Your task to perform on an android device: Open the calendar and show me this week's events? Image 0: 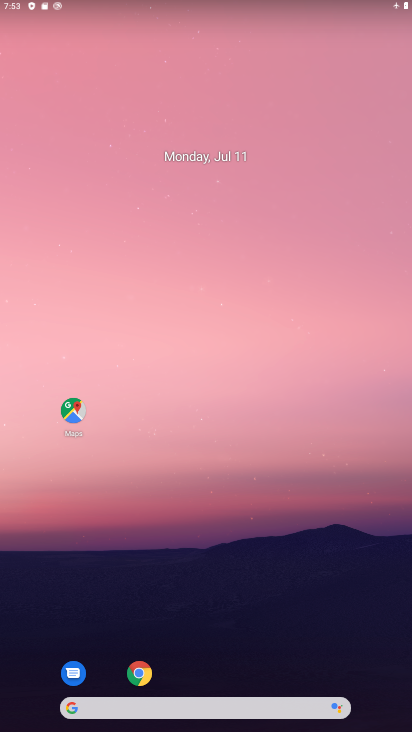
Step 0: drag from (161, 650) to (217, 193)
Your task to perform on an android device: Open the calendar and show me this week's events? Image 1: 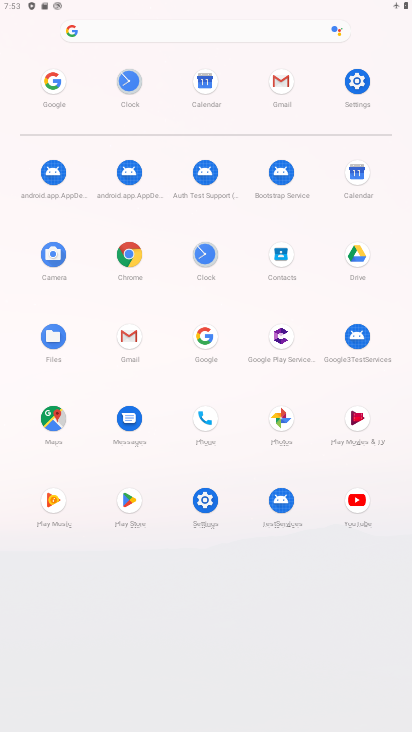
Step 1: click (347, 175)
Your task to perform on an android device: Open the calendar and show me this week's events? Image 2: 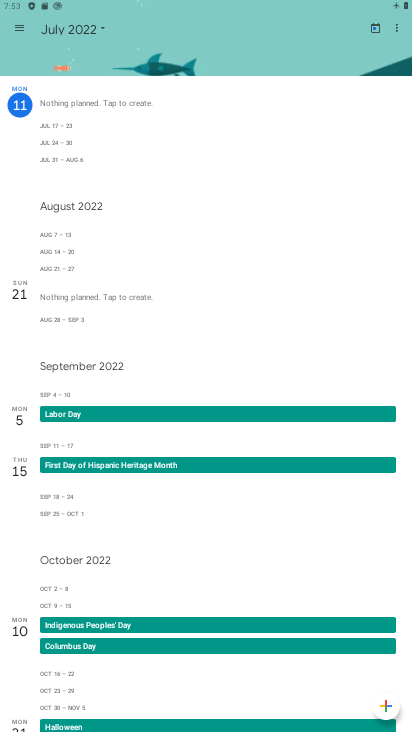
Step 2: click (23, 28)
Your task to perform on an android device: Open the calendar and show me this week's events? Image 3: 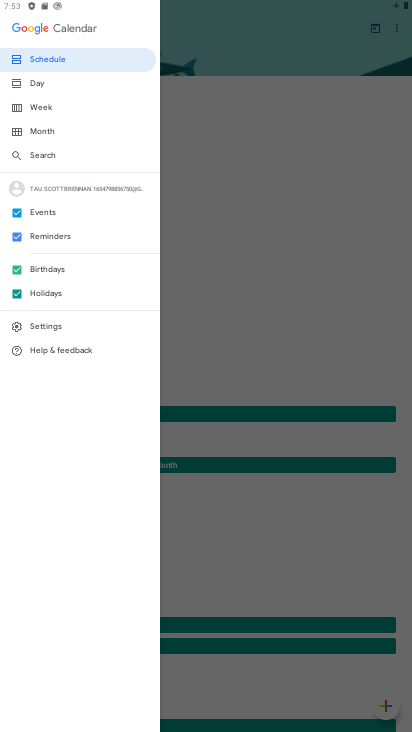
Step 3: click (250, 188)
Your task to perform on an android device: Open the calendar and show me this week's events? Image 4: 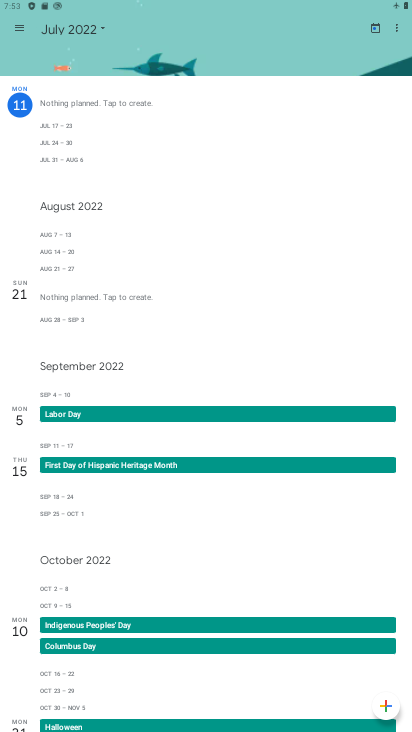
Step 4: click (80, 31)
Your task to perform on an android device: Open the calendar and show me this week's events? Image 5: 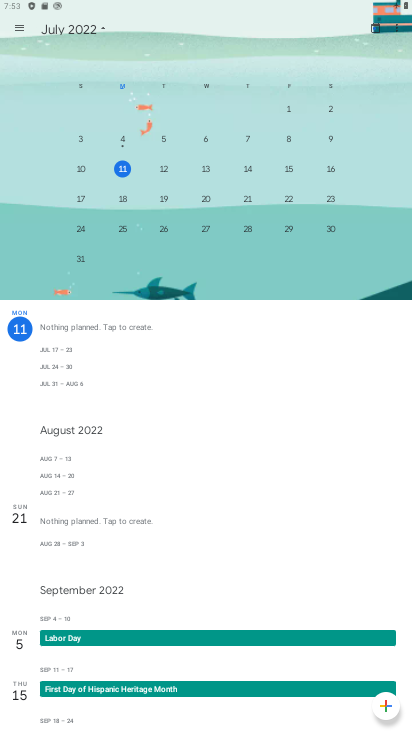
Step 5: click (166, 166)
Your task to perform on an android device: Open the calendar and show me this week's events? Image 6: 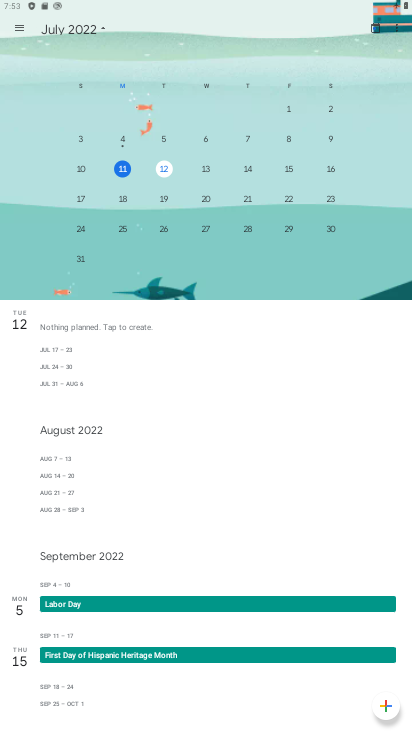
Step 6: task complete